Your task to perform on an android device: Search for seafood restaurants on Google Maps Image 0: 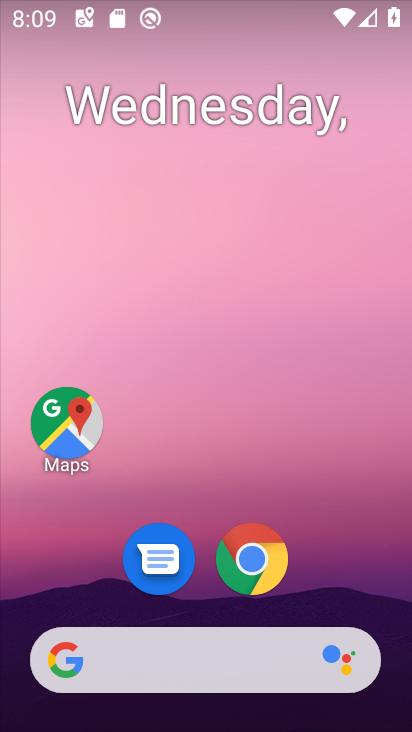
Step 0: drag from (376, 525) to (361, 207)
Your task to perform on an android device: Search for seafood restaurants on Google Maps Image 1: 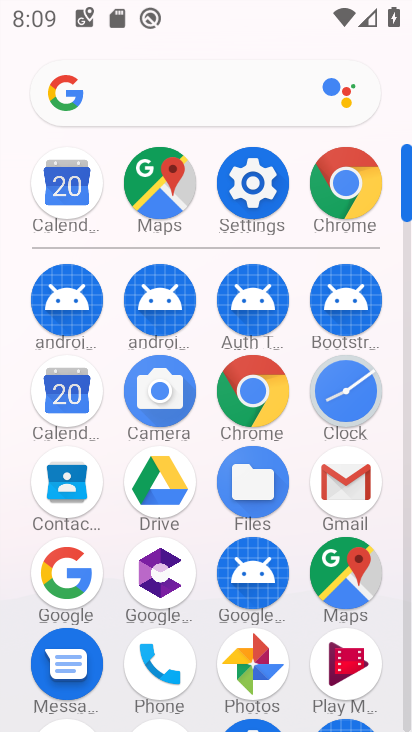
Step 1: click (339, 567)
Your task to perform on an android device: Search for seafood restaurants on Google Maps Image 2: 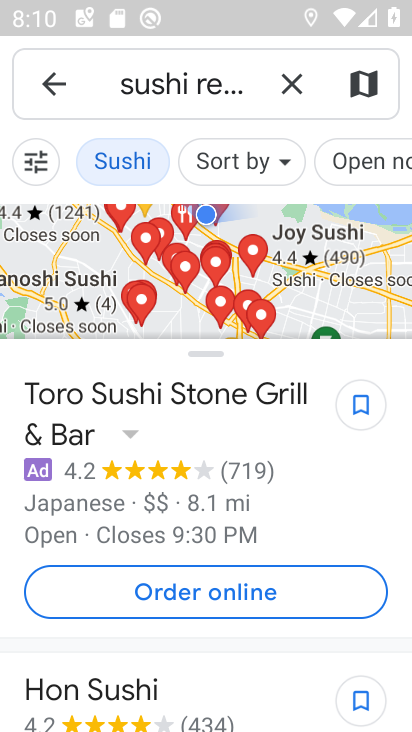
Step 2: click (276, 73)
Your task to perform on an android device: Search for seafood restaurants on Google Maps Image 3: 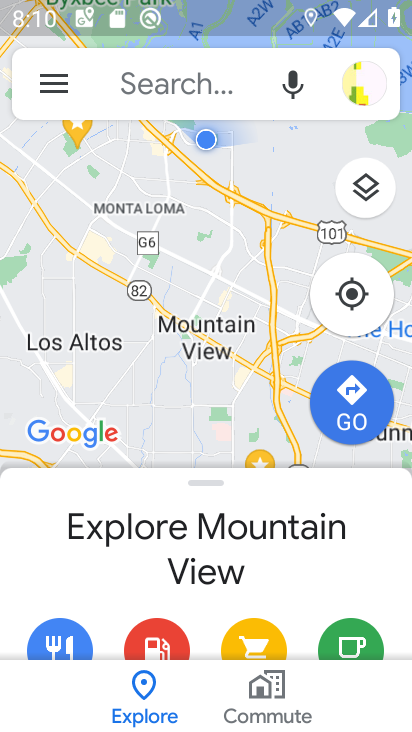
Step 3: type "seafood restaurants"
Your task to perform on an android device: Search for seafood restaurants on Google Maps Image 4: 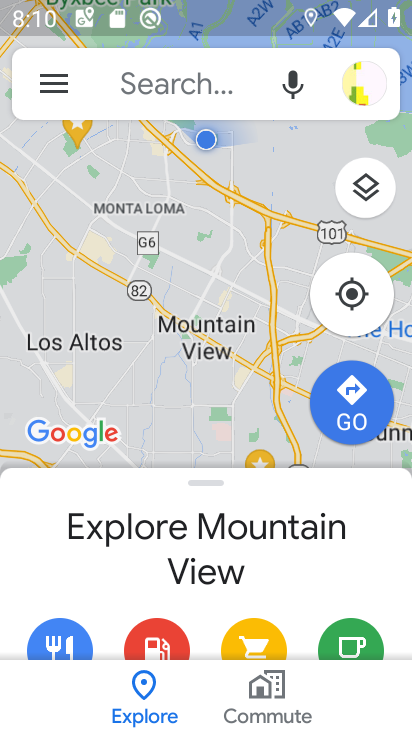
Step 4: click (165, 88)
Your task to perform on an android device: Search for seafood restaurants on Google Maps Image 5: 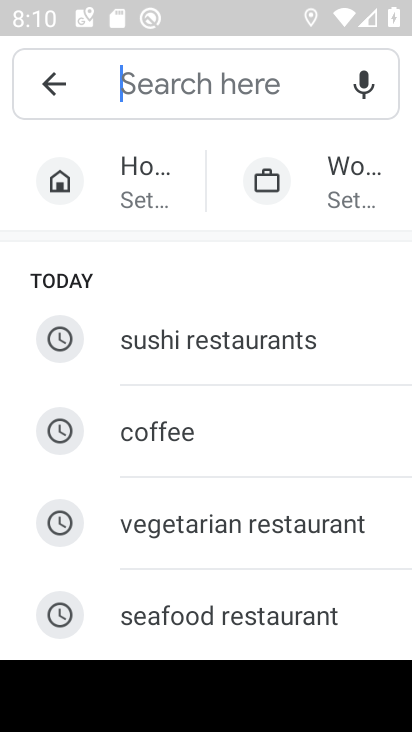
Step 5: click (310, 606)
Your task to perform on an android device: Search for seafood restaurants on Google Maps Image 6: 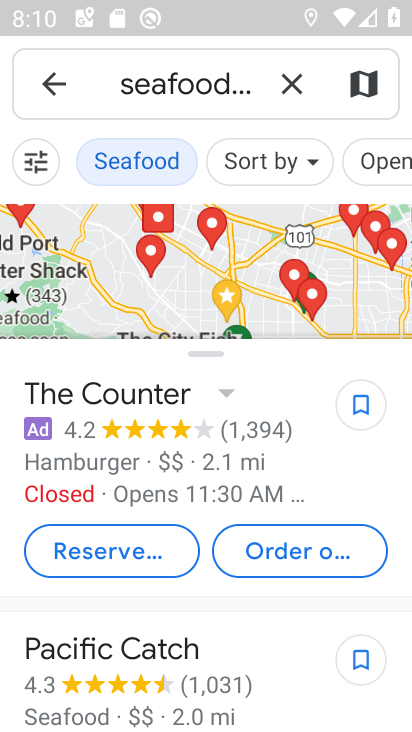
Step 6: task complete